Your task to perform on an android device: change the clock display to show seconds Image 0: 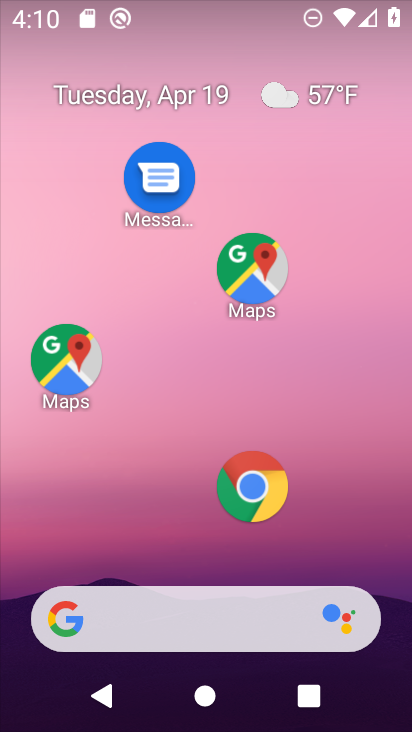
Step 0: drag from (354, 521) to (355, 80)
Your task to perform on an android device: change the clock display to show seconds Image 1: 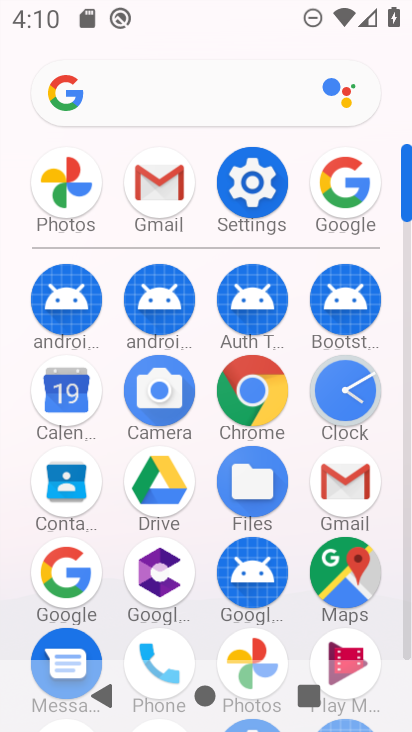
Step 1: click (342, 380)
Your task to perform on an android device: change the clock display to show seconds Image 2: 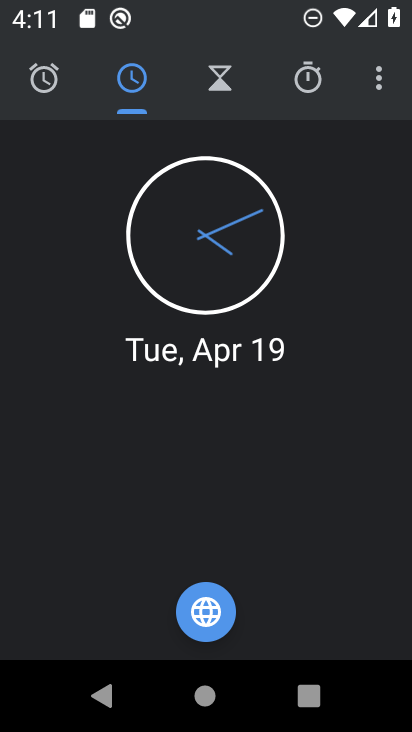
Step 2: click (372, 87)
Your task to perform on an android device: change the clock display to show seconds Image 3: 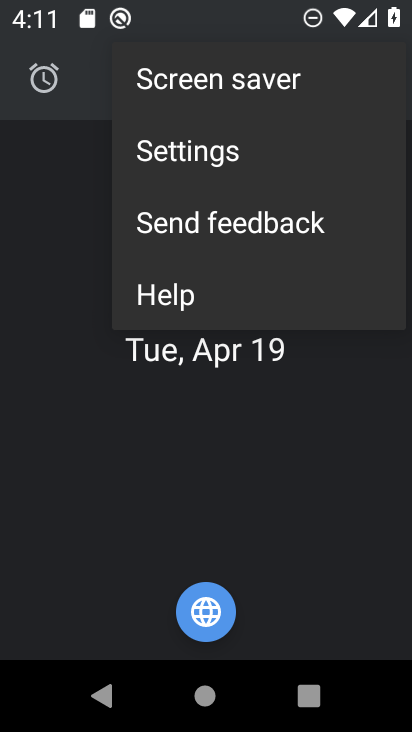
Step 3: click (301, 157)
Your task to perform on an android device: change the clock display to show seconds Image 4: 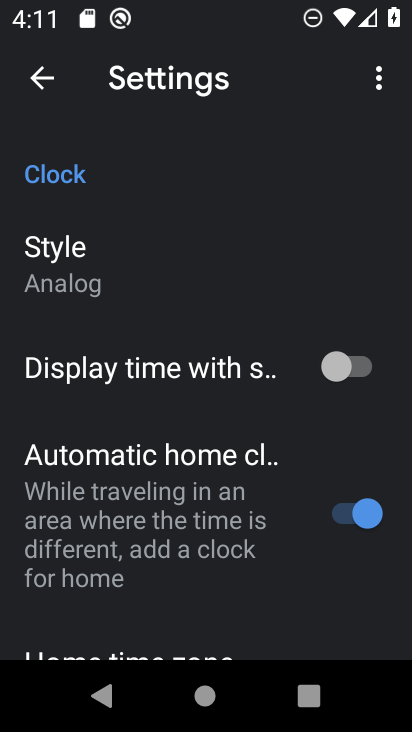
Step 4: click (339, 379)
Your task to perform on an android device: change the clock display to show seconds Image 5: 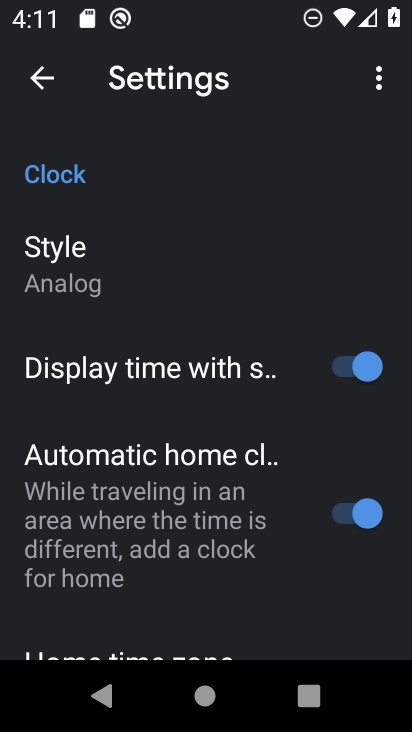
Step 5: task complete